Your task to perform on an android device: What's the weather today? Image 0: 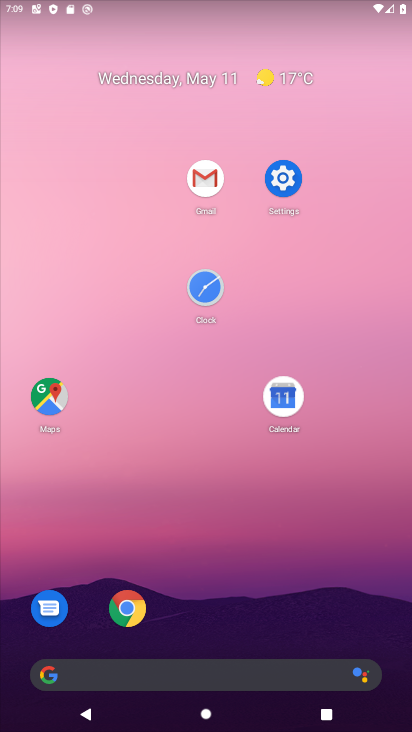
Step 0: drag from (251, 609) to (230, 539)
Your task to perform on an android device: What's the weather today? Image 1: 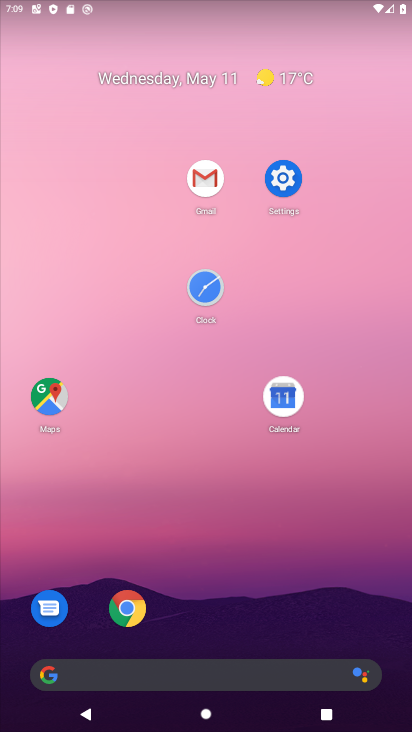
Step 1: click (203, 674)
Your task to perform on an android device: What's the weather today? Image 2: 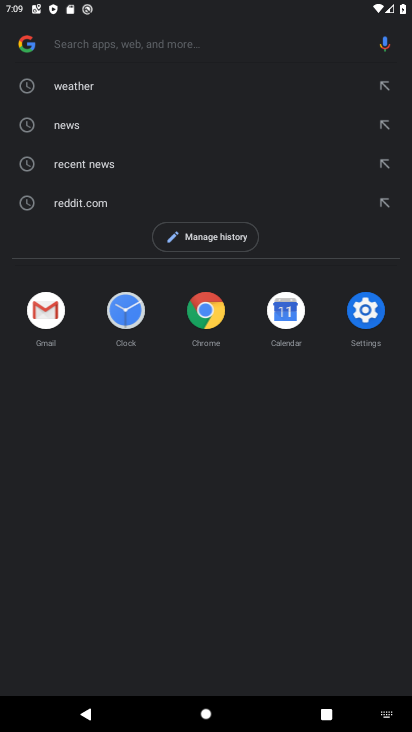
Step 2: click (137, 79)
Your task to perform on an android device: What's the weather today? Image 3: 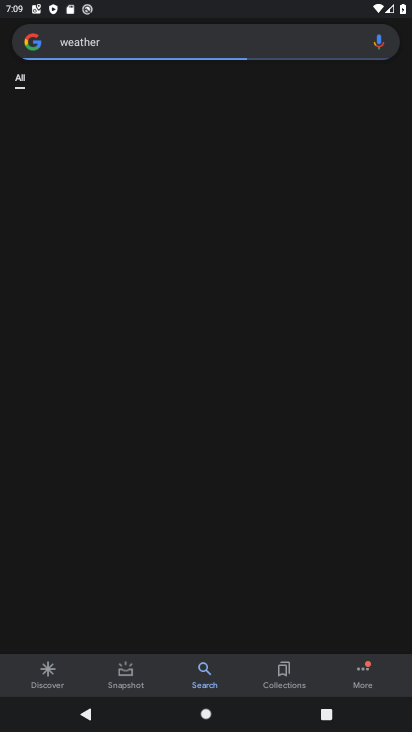
Step 3: task complete